Your task to perform on an android device: Open Wikipedia Image 0: 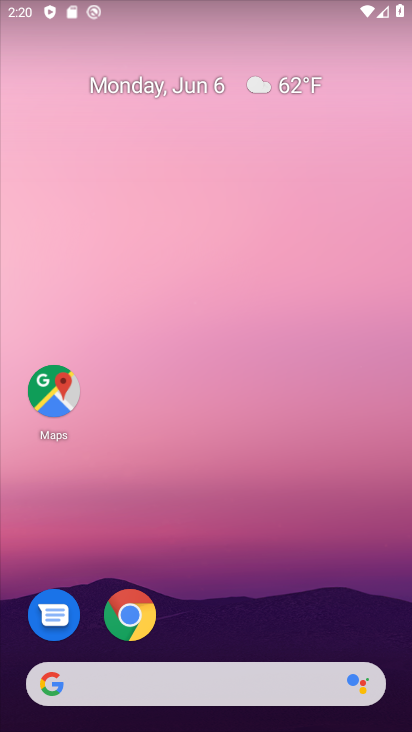
Step 0: drag from (269, 685) to (319, 2)
Your task to perform on an android device: Open Wikipedia Image 1: 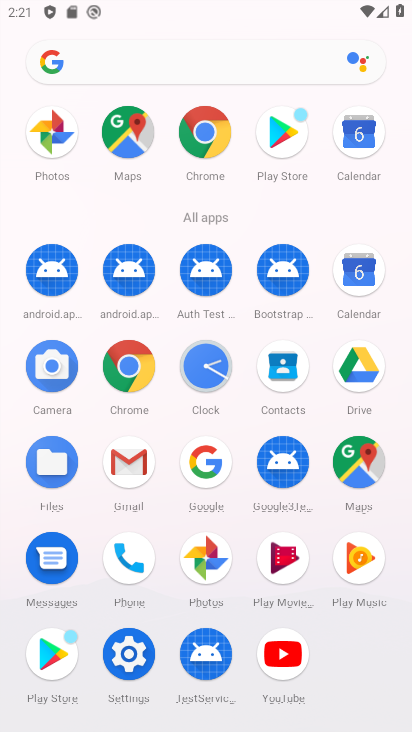
Step 1: click (128, 364)
Your task to perform on an android device: Open Wikipedia Image 2: 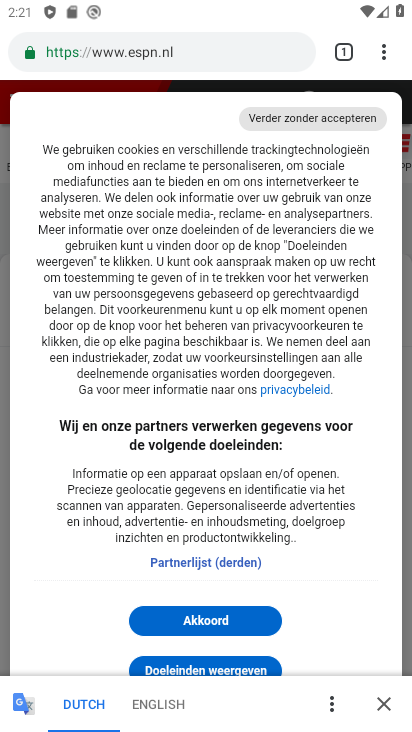
Step 2: press back button
Your task to perform on an android device: Open Wikipedia Image 3: 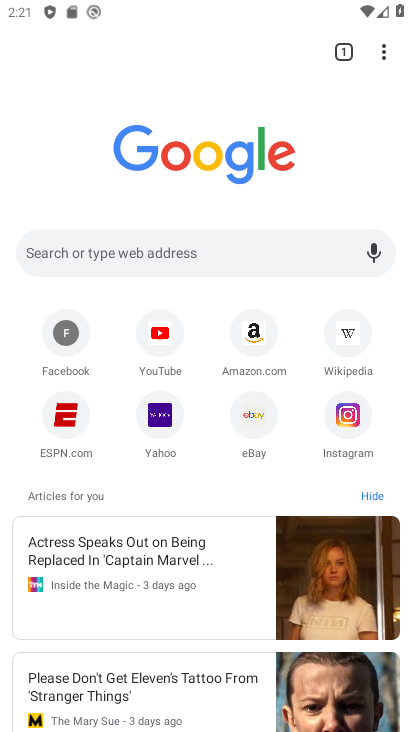
Step 3: click (362, 344)
Your task to perform on an android device: Open Wikipedia Image 4: 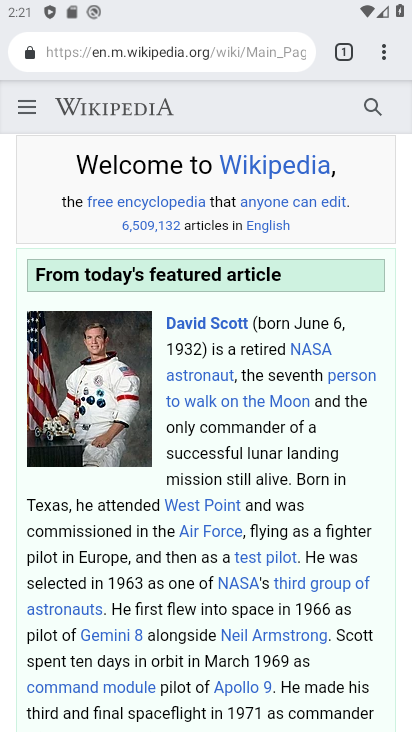
Step 4: task complete